Your task to perform on an android device: change alarm snooze length Image 0: 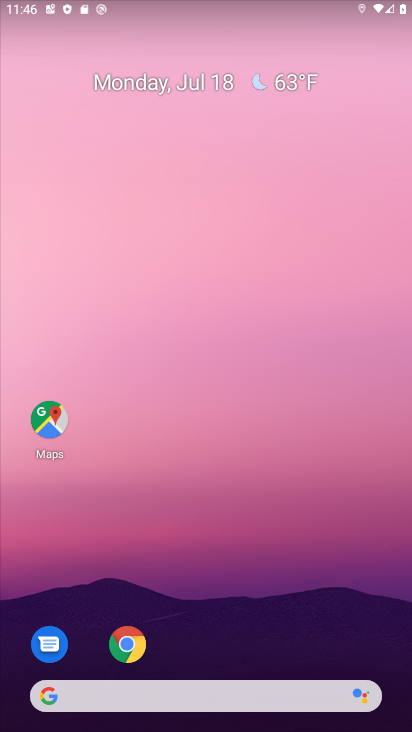
Step 0: drag from (193, 725) to (199, 117)
Your task to perform on an android device: change alarm snooze length Image 1: 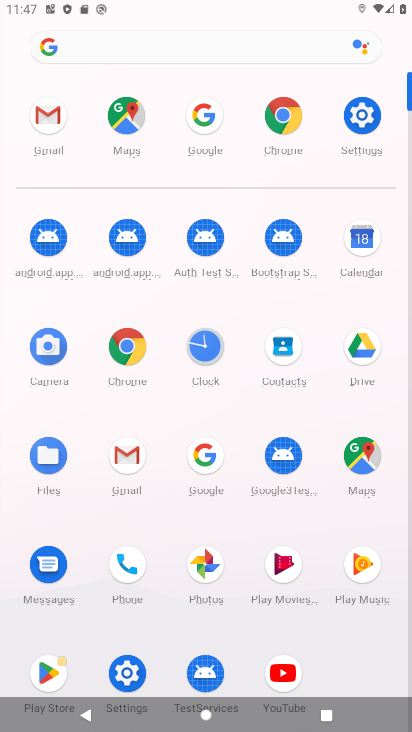
Step 1: click (213, 333)
Your task to perform on an android device: change alarm snooze length Image 2: 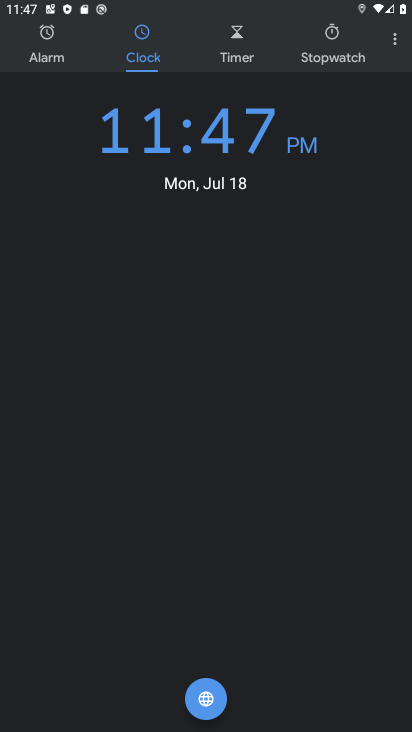
Step 2: click (395, 46)
Your task to perform on an android device: change alarm snooze length Image 3: 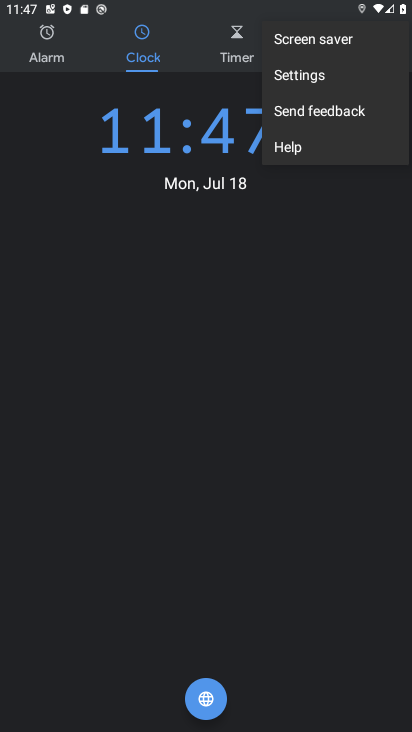
Step 3: click (309, 74)
Your task to perform on an android device: change alarm snooze length Image 4: 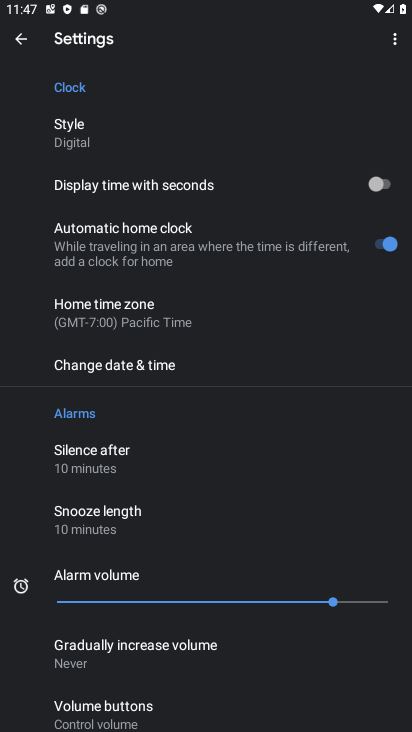
Step 4: click (91, 526)
Your task to perform on an android device: change alarm snooze length Image 5: 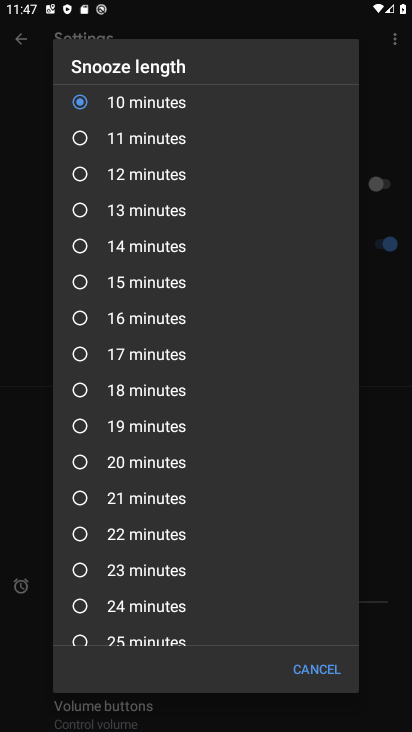
Step 5: click (81, 570)
Your task to perform on an android device: change alarm snooze length Image 6: 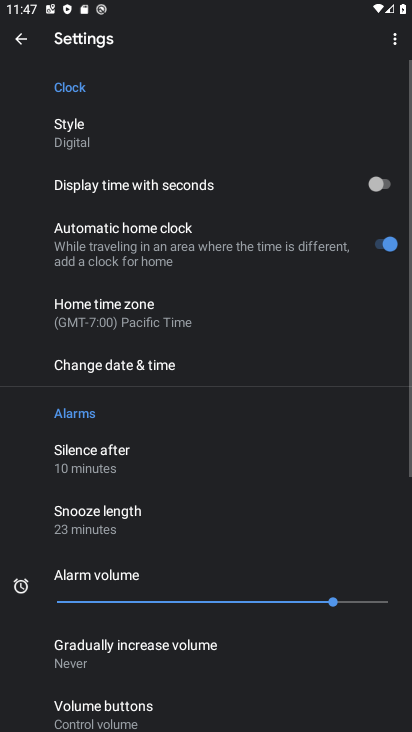
Step 6: task complete